Your task to perform on an android device: turn off wifi Image 0: 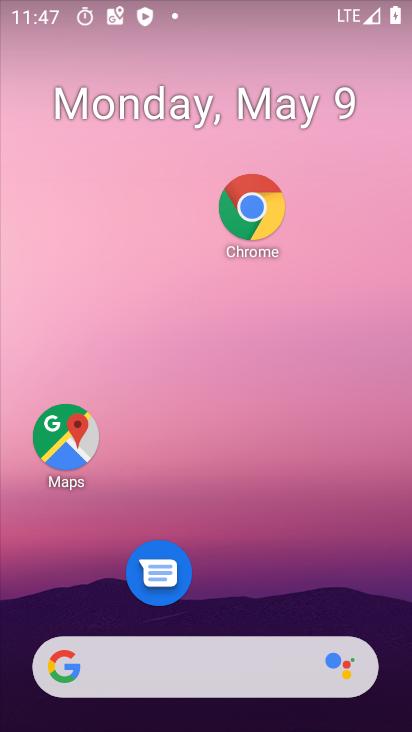
Step 0: drag from (148, 595) to (208, 377)
Your task to perform on an android device: turn off wifi Image 1: 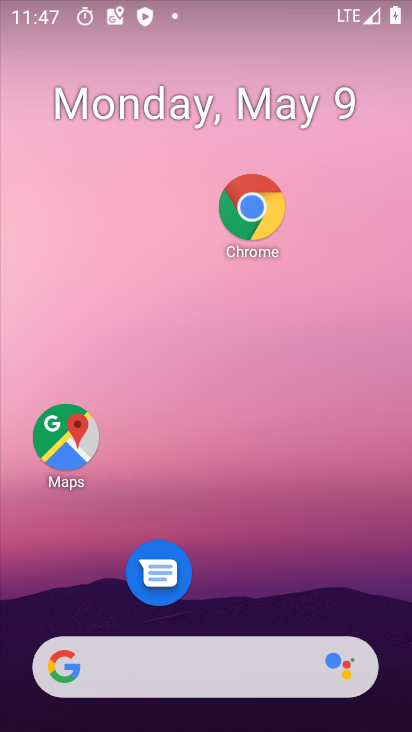
Step 1: drag from (319, 529) to (378, 115)
Your task to perform on an android device: turn off wifi Image 2: 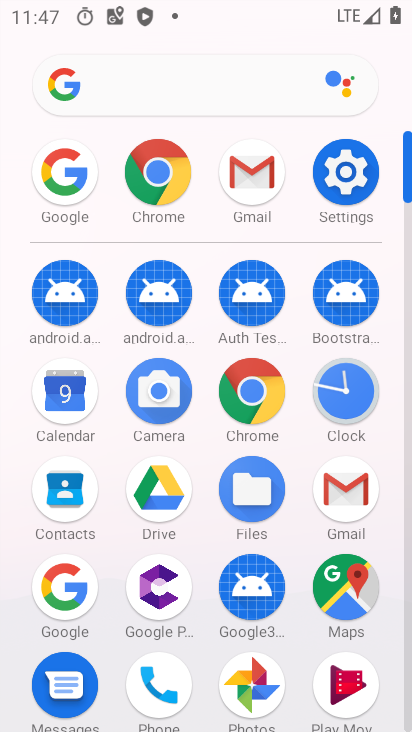
Step 2: click (336, 173)
Your task to perform on an android device: turn off wifi Image 3: 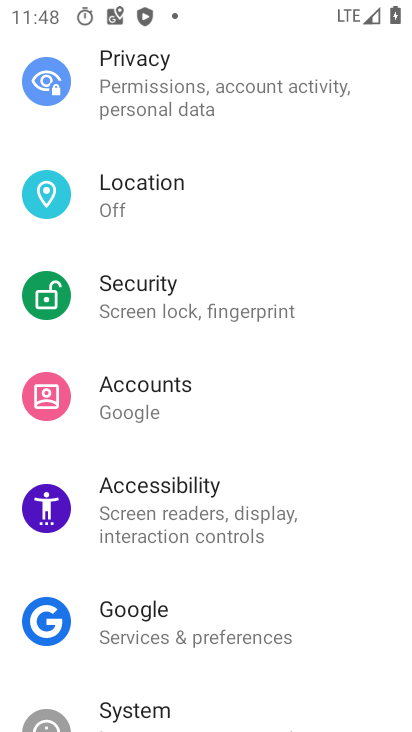
Step 3: drag from (168, 327) to (194, 650)
Your task to perform on an android device: turn off wifi Image 4: 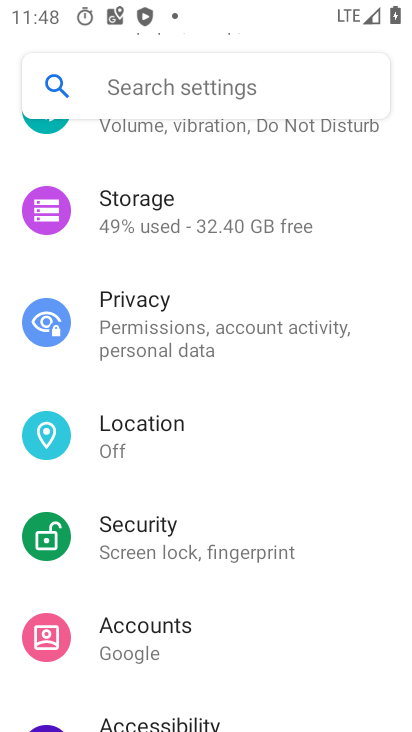
Step 4: drag from (254, 221) to (279, 545)
Your task to perform on an android device: turn off wifi Image 5: 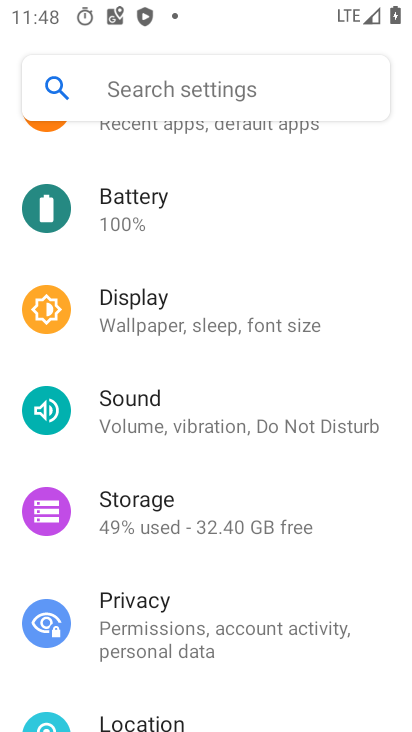
Step 5: drag from (295, 280) to (261, 551)
Your task to perform on an android device: turn off wifi Image 6: 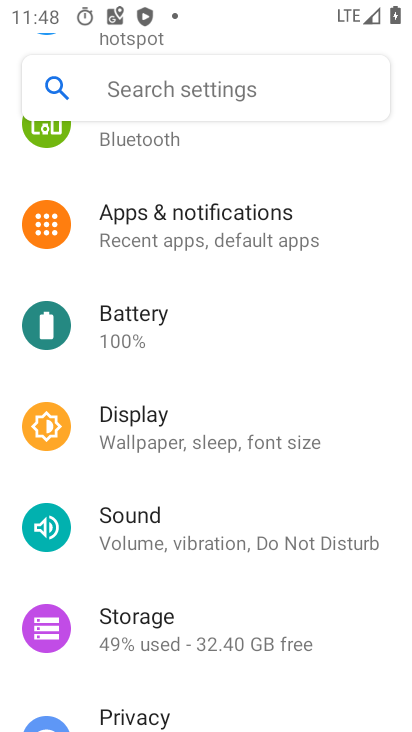
Step 6: drag from (260, 292) to (274, 662)
Your task to perform on an android device: turn off wifi Image 7: 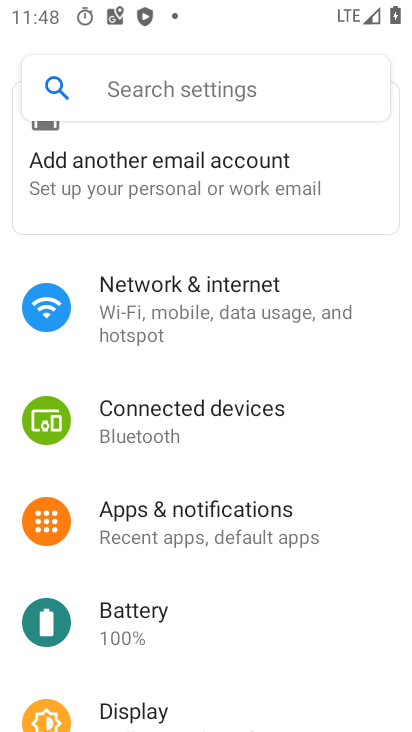
Step 7: click (291, 302)
Your task to perform on an android device: turn off wifi Image 8: 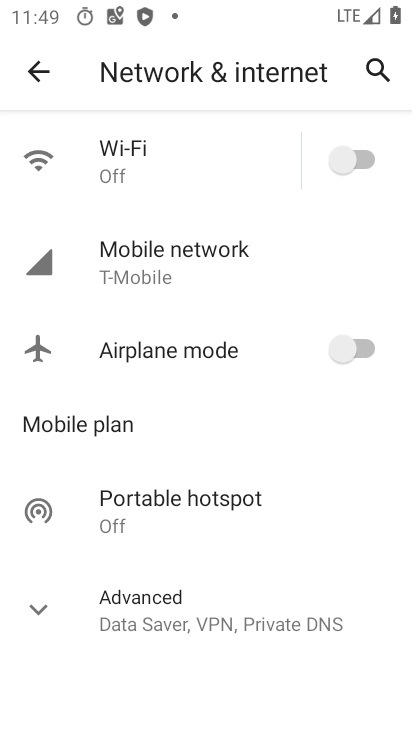
Step 8: task complete